Your task to perform on an android device: Open settings on Google Maps Image 0: 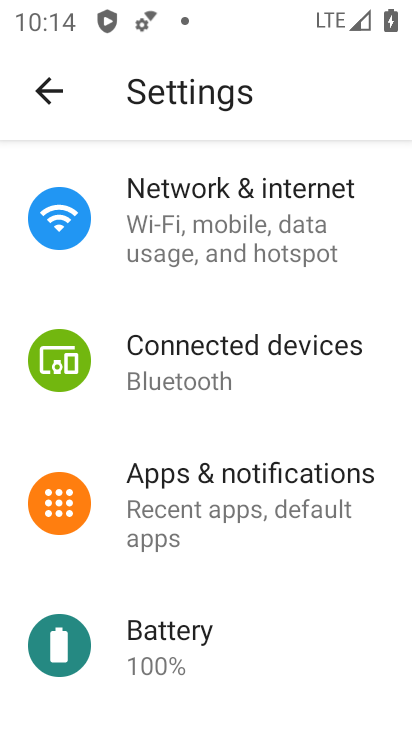
Step 0: press home button
Your task to perform on an android device: Open settings on Google Maps Image 1: 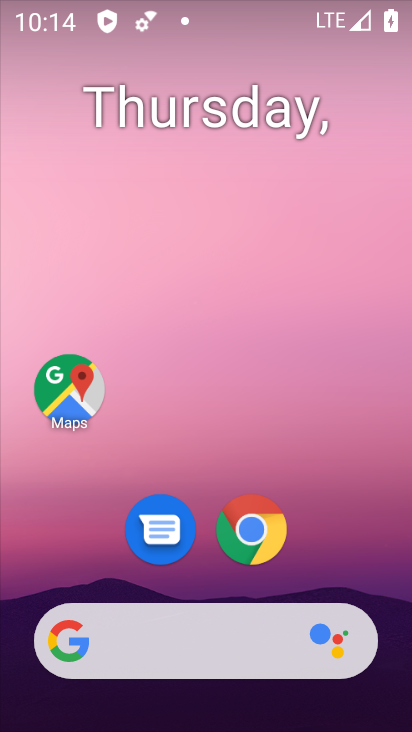
Step 1: click (68, 388)
Your task to perform on an android device: Open settings on Google Maps Image 2: 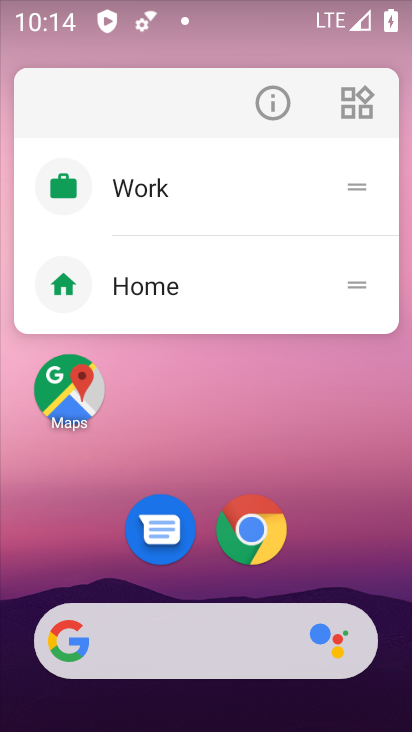
Step 2: click (70, 413)
Your task to perform on an android device: Open settings on Google Maps Image 3: 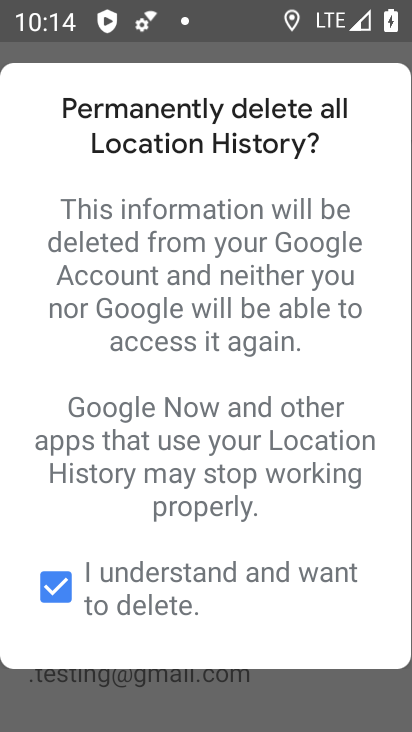
Step 3: press back button
Your task to perform on an android device: Open settings on Google Maps Image 4: 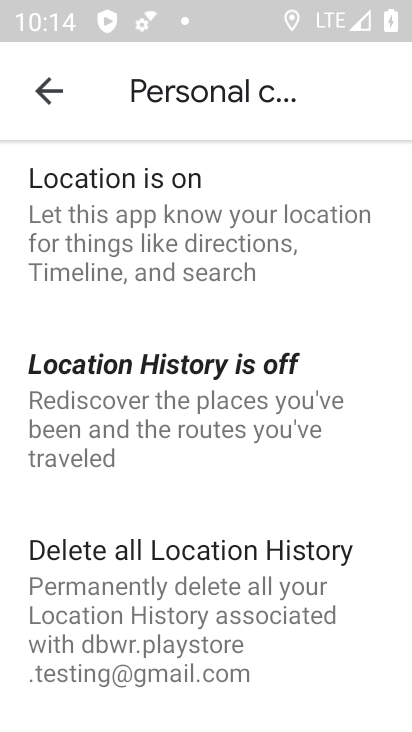
Step 4: press back button
Your task to perform on an android device: Open settings on Google Maps Image 5: 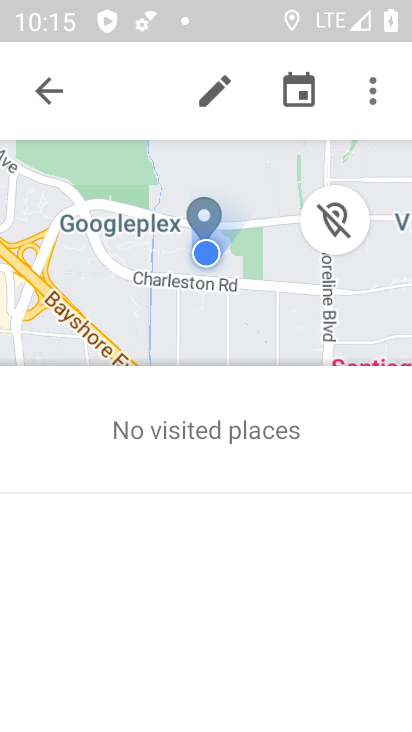
Step 5: click (47, 94)
Your task to perform on an android device: Open settings on Google Maps Image 6: 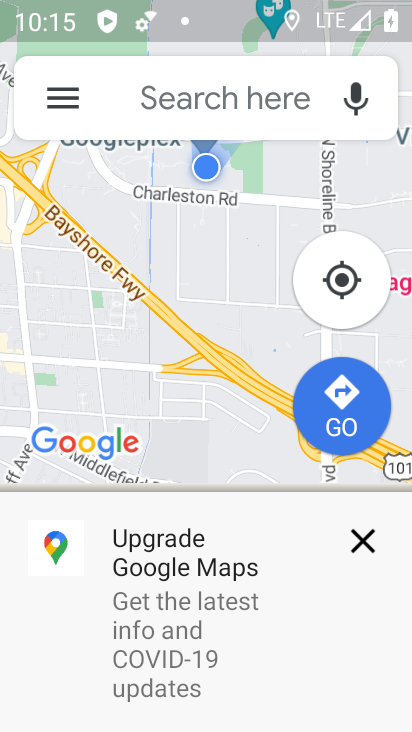
Step 6: click (365, 536)
Your task to perform on an android device: Open settings on Google Maps Image 7: 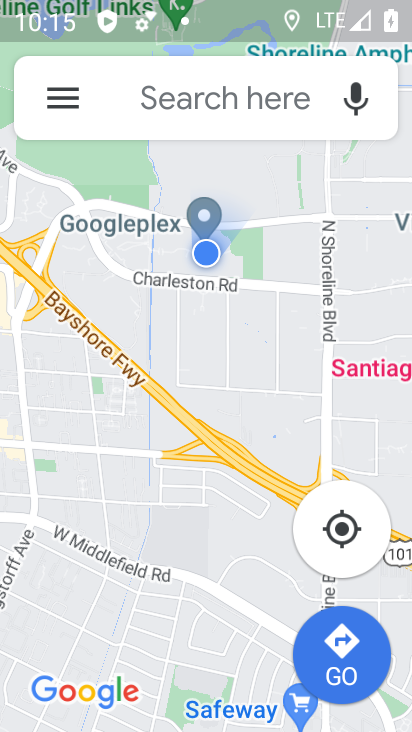
Step 7: click (55, 100)
Your task to perform on an android device: Open settings on Google Maps Image 8: 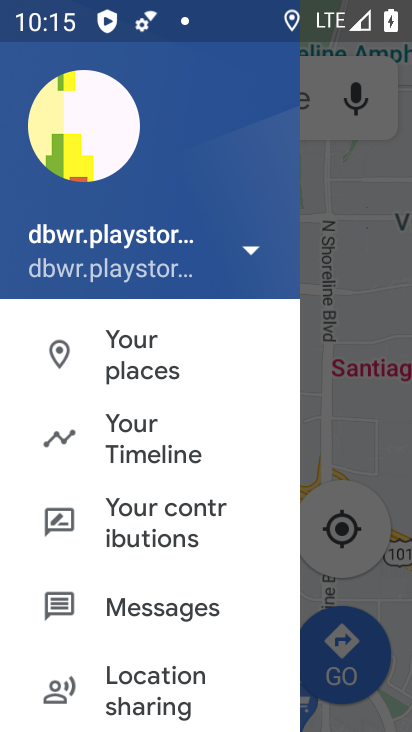
Step 8: drag from (156, 660) to (181, 310)
Your task to perform on an android device: Open settings on Google Maps Image 9: 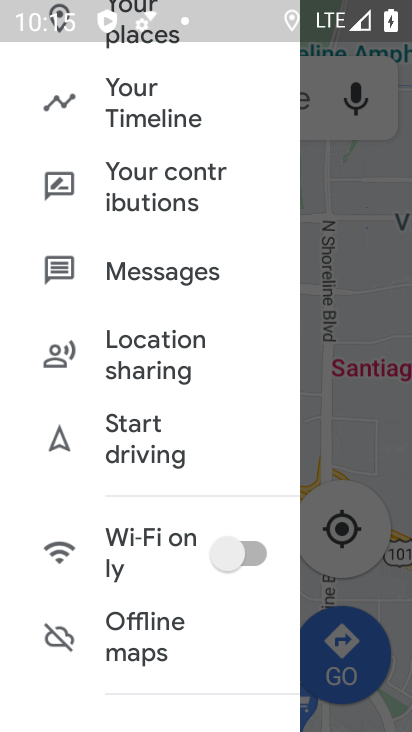
Step 9: drag from (175, 263) to (126, 482)
Your task to perform on an android device: Open settings on Google Maps Image 10: 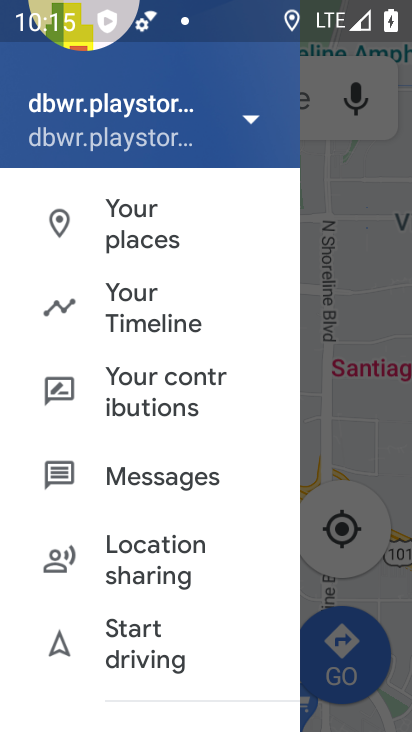
Step 10: drag from (139, 513) to (301, 0)
Your task to perform on an android device: Open settings on Google Maps Image 11: 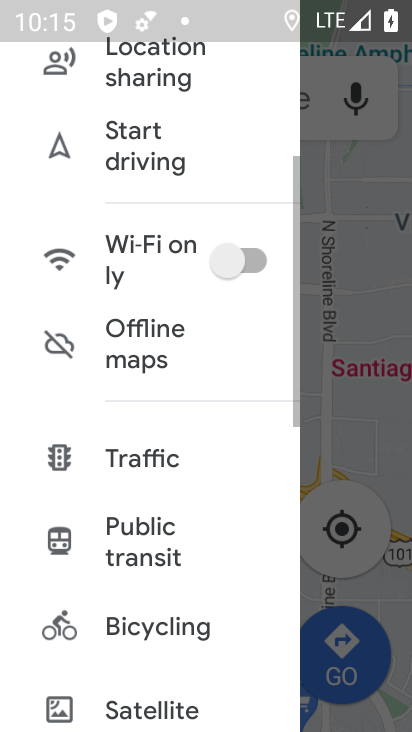
Step 11: drag from (168, 507) to (260, 5)
Your task to perform on an android device: Open settings on Google Maps Image 12: 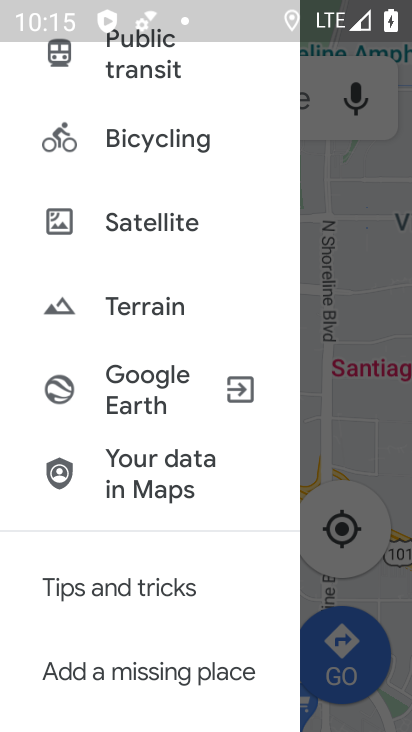
Step 12: drag from (145, 541) to (244, 90)
Your task to perform on an android device: Open settings on Google Maps Image 13: 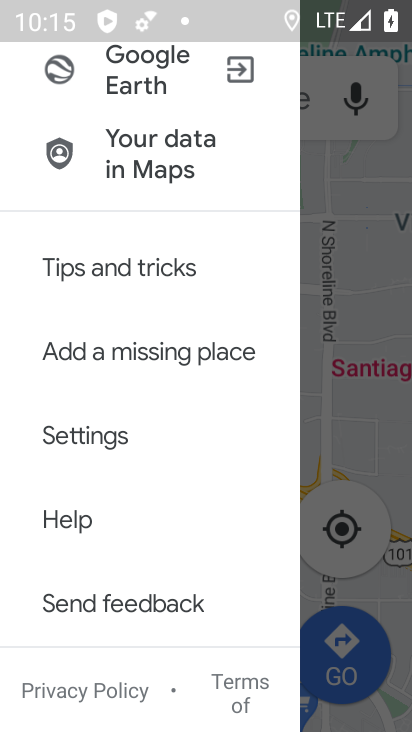
Step 13: click (104, 434)
Your task to perform on an android device: Open settings on Google Maps Image 14: 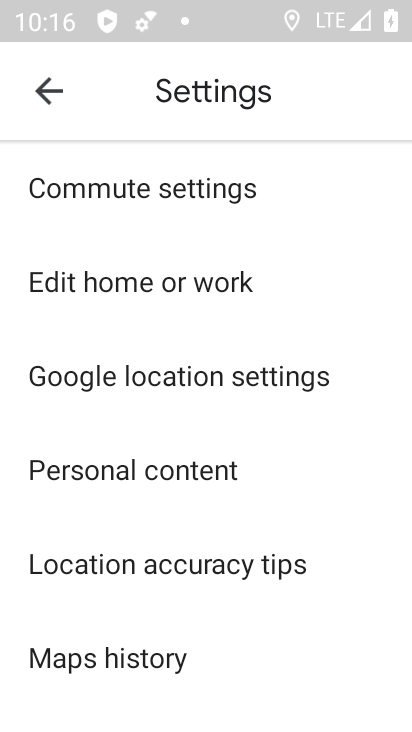
Step 14: task complete